Your task to perform on an android device: Do I have any events tomorrow? Image 0: 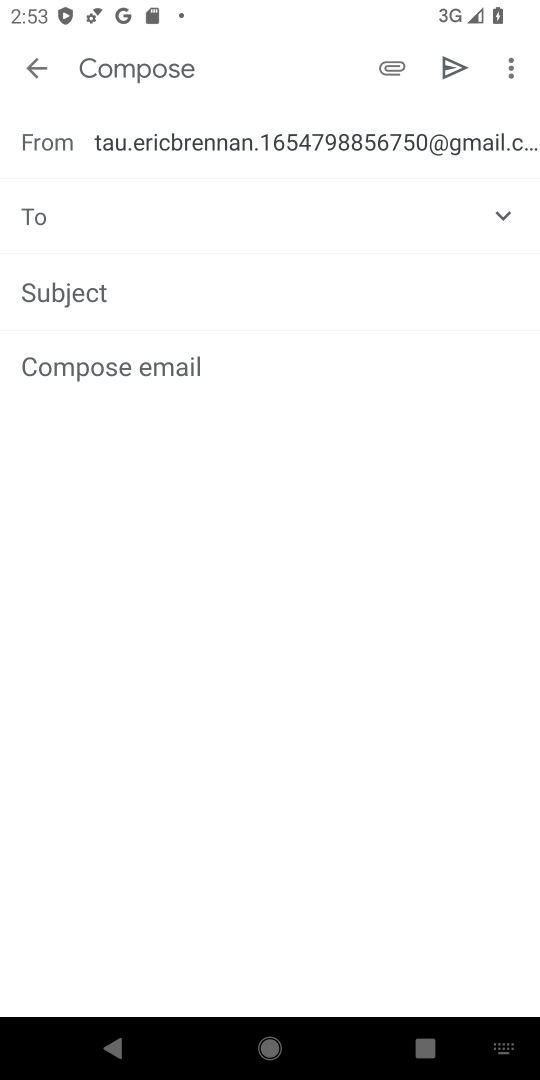
Step 0: press back button
Your task to perform on an android device: Do I have any events tomorrow? Image 1: 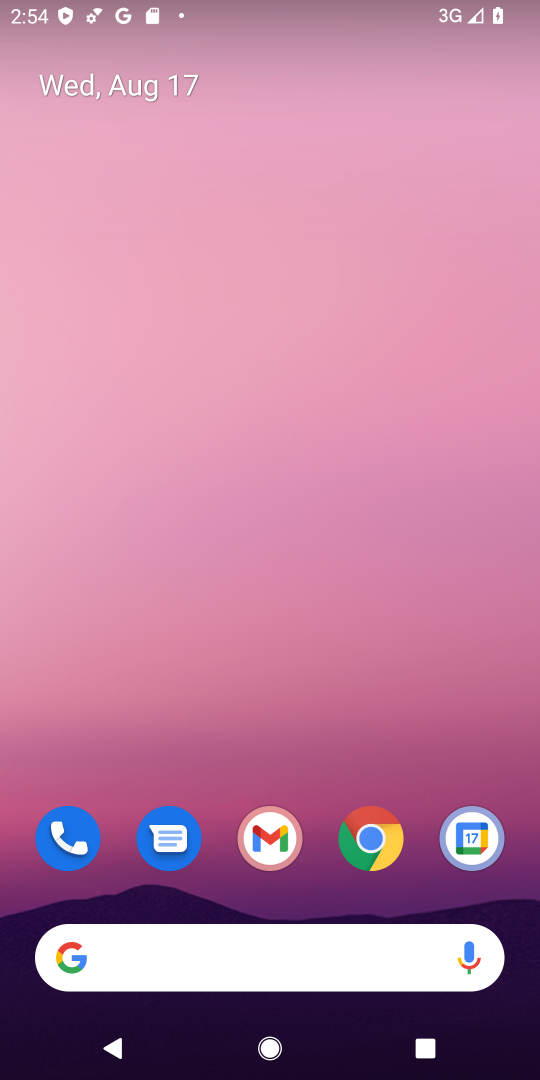
Step 1: drag from (238, 925) to (374, 118)
Your task to perform on an android device: Do I have any events tomorrow? Image 2: 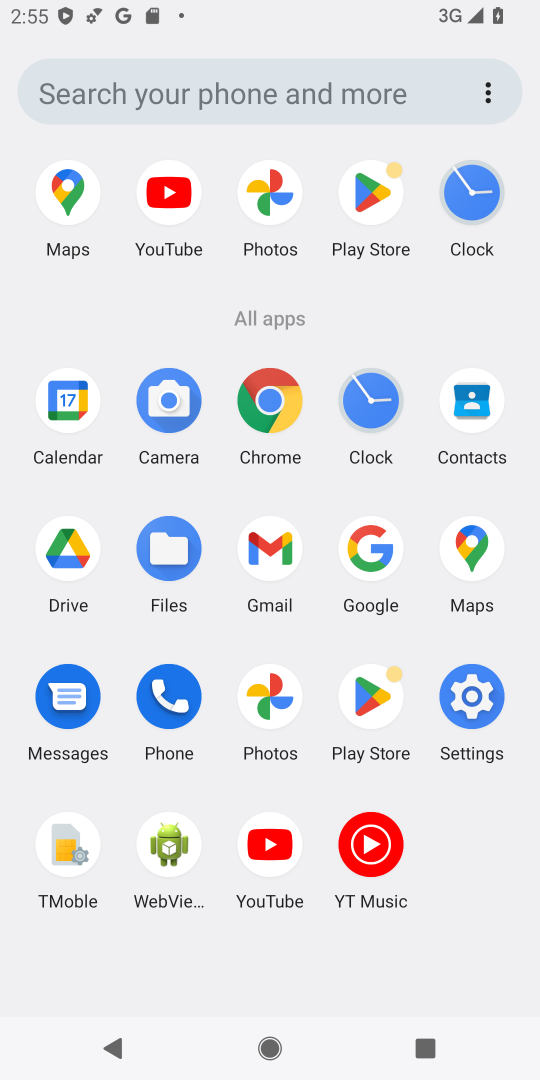
Step 2: click (76, 413)
Your task to perform on an android device: Do I have any events tomorrow? Image 3: 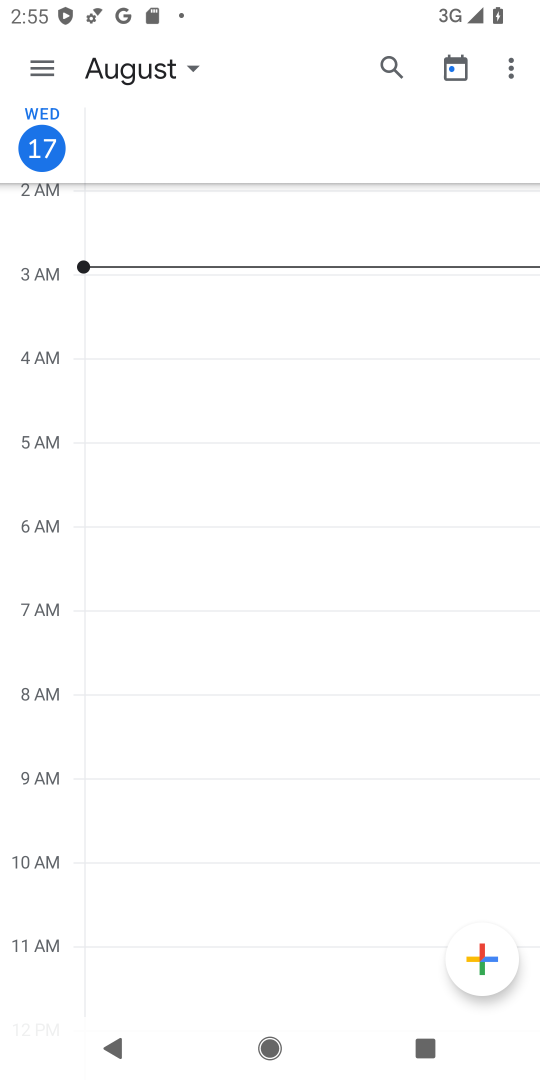
Step 3: click (43, 72)
Your task to perform on an android device: Do I have any events tomorrow? Image 4: 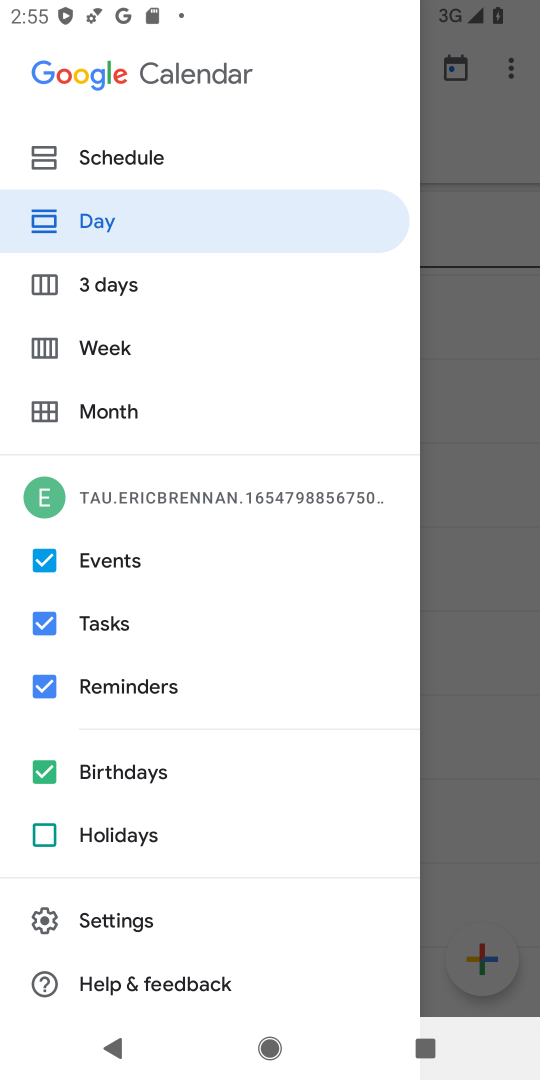
Step 4: click (157, 156)
Your task to perform on an android device: Do I have any events tomorrow? Image 5: 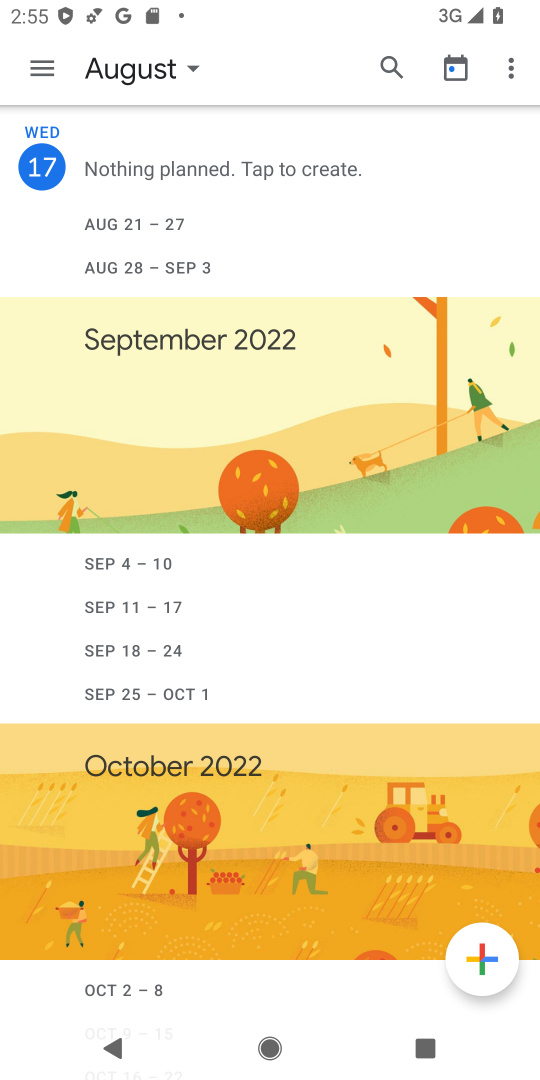
Step 5: task complete